Your task to perform on an android device: Add "logitech g502" to the cart on bestbuy Image 0: 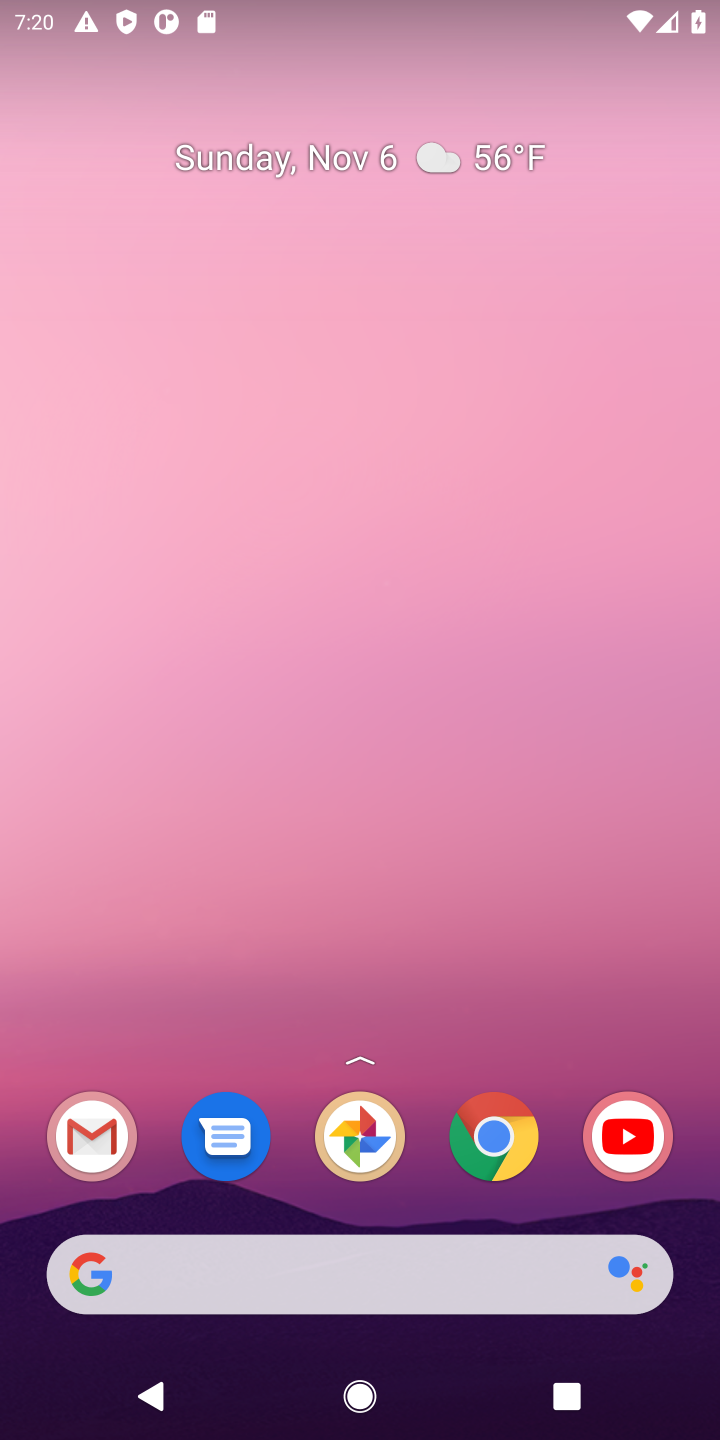
Step 0: click (248, 1298)
Your task to perform on an android device: Add "logitech g502" to the cart on bestbuy Image 1: 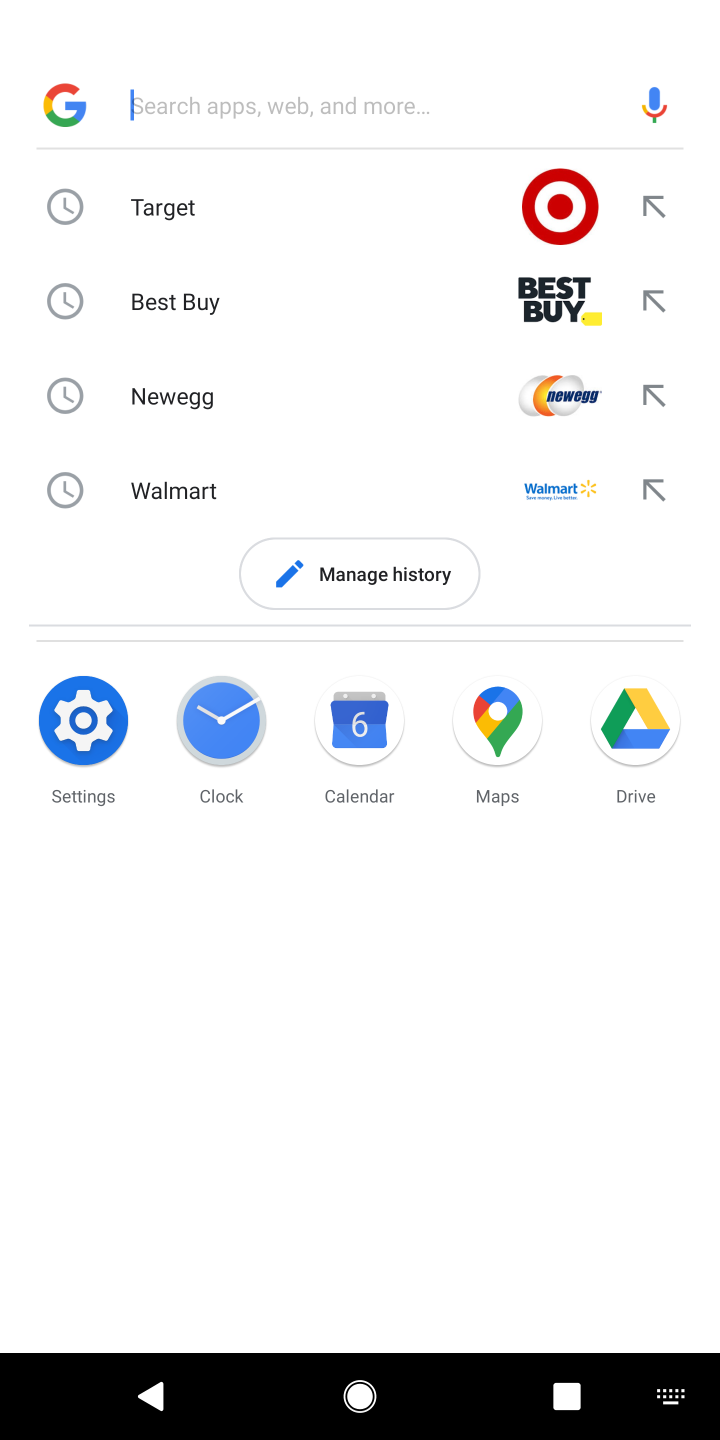
Step 1: click (305, 315)
Your task to perform on an android device: Add "logitech g502" to the cart on bestbuy Image 2: 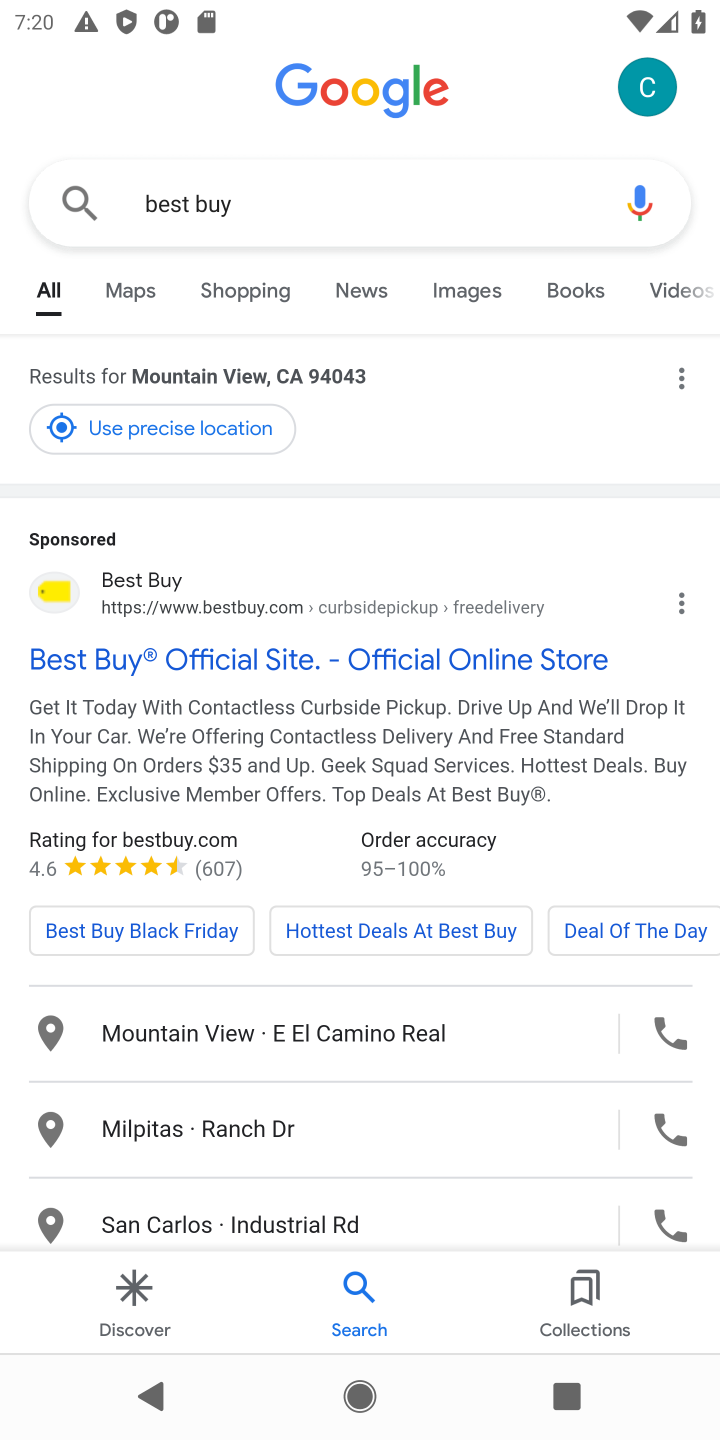
Step 2: click (208, 679)
Your task to perform on an android device: Add "logitech g502" to the cart on bestbuy Image 3: 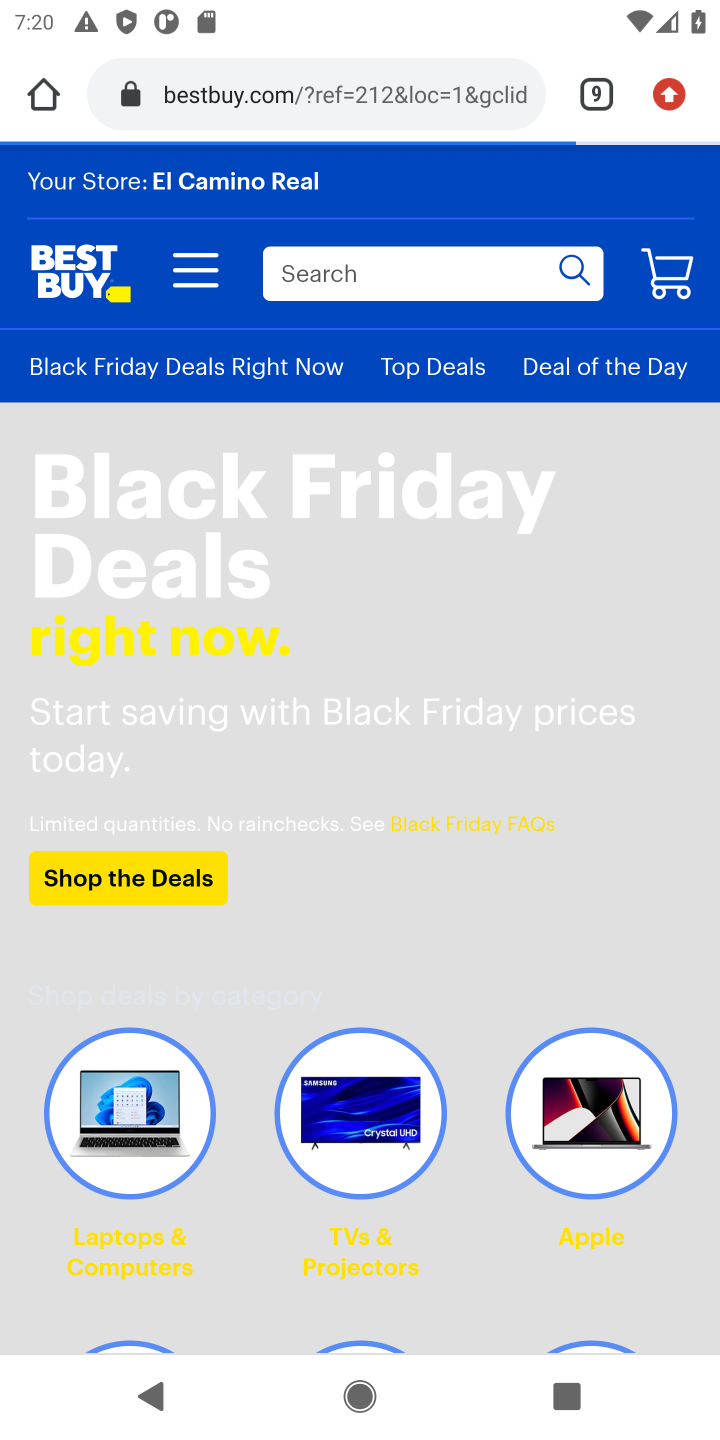
Step 3: click (302, 270)
Your task to perform on an android device: Add "logitech g502" to the cart on bestbuy Image 4: 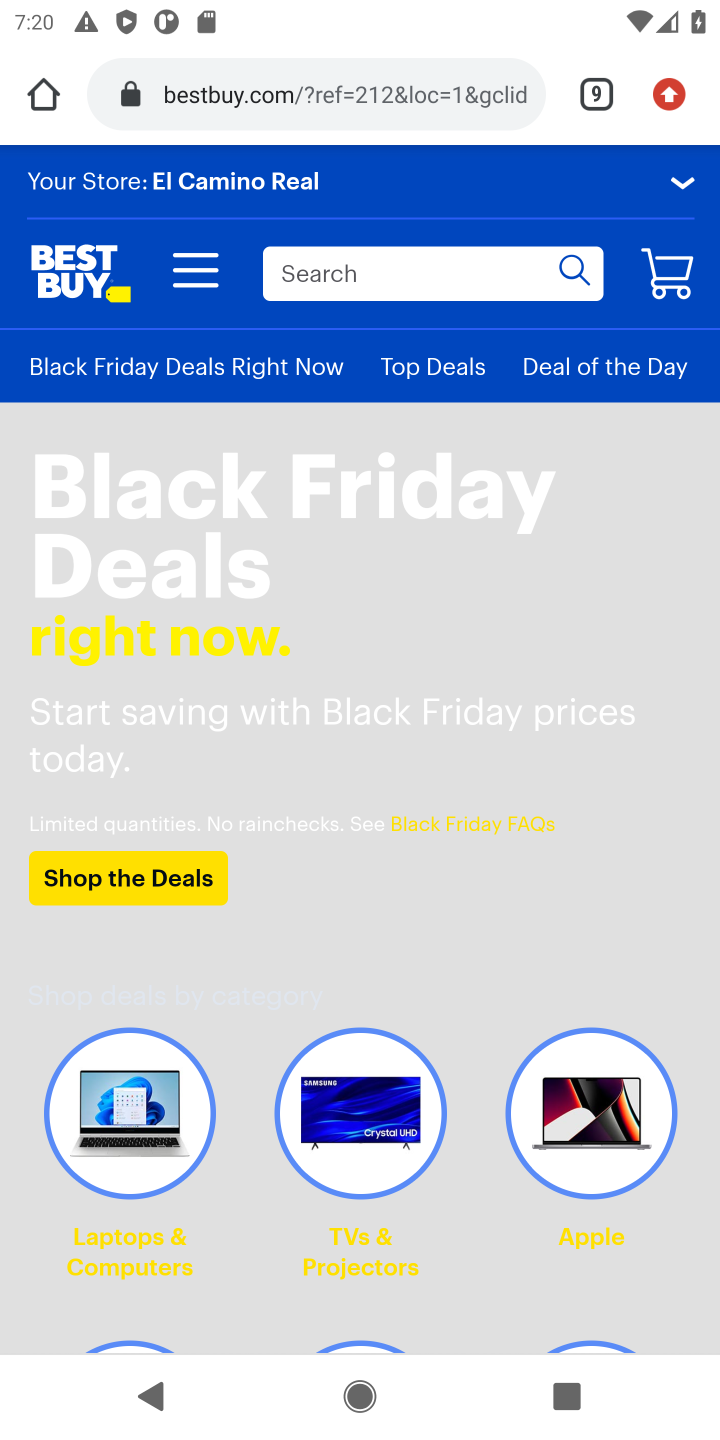
Step 4: type "logitech g pro"
Your task to perform on an android device: Add "logitech g502" to the cart on bestbuy Image 5: 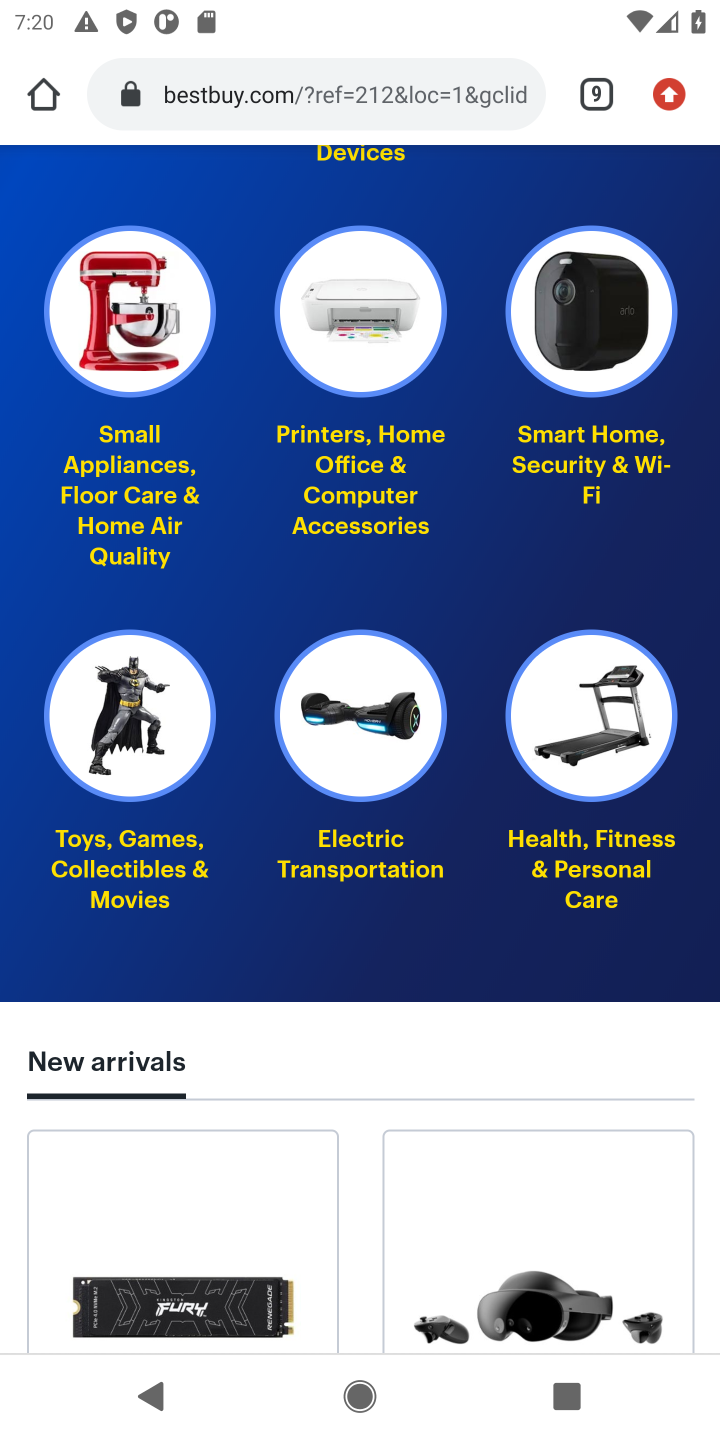
Step 5: task complete